Your task to perform on an android device: read, delete, or share a saved page in the chrome app Image 0: 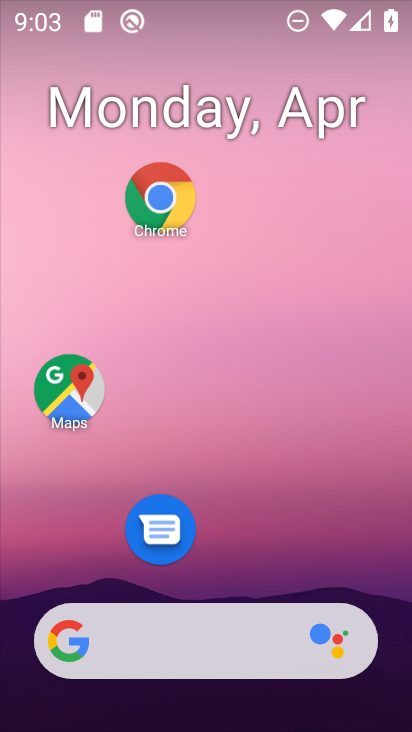
Step 0: click (165, 190)
Your task to perform on an android device: read, delete, or share a saved page in the chrome app Image 1: 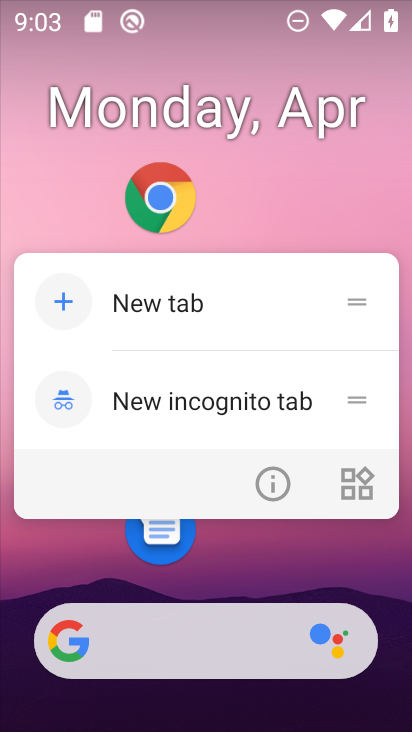
Step 1: click (159, 200)
Your task to perform on an android device: read, delete, or share a saved page in the chrome app Image 2: 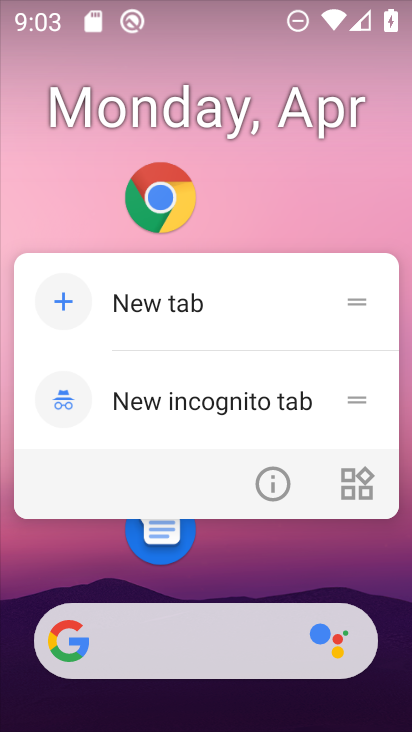
Step 2: click (159, 200)
Your task to perform on an android device: read, delete, or share a saved page in the chrome app Image 3: 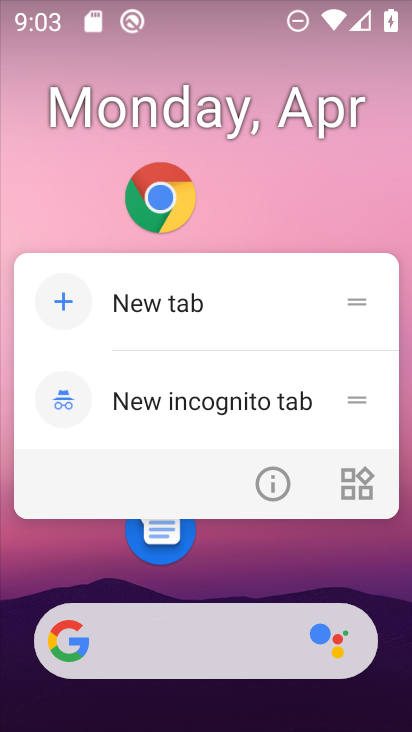
Step 3: click (159, 200)
Your task to perform on an android device: read, delete, or share a saved page in the chrome app Image 4: 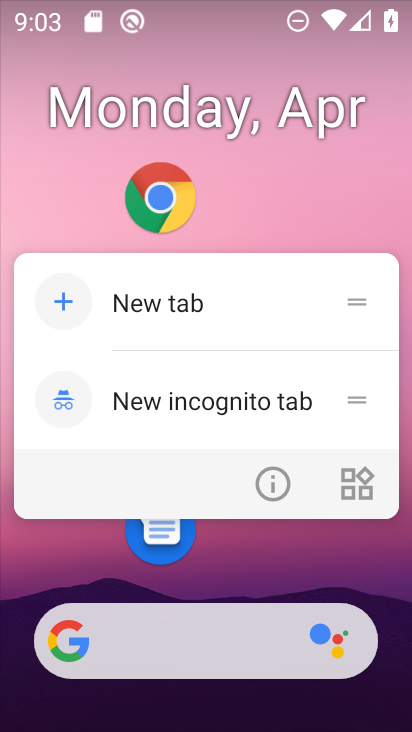
Step 4: click (159, 200)
Your task to perform on an android device: read, delete, or share a saved page in the chrome app Image 5: 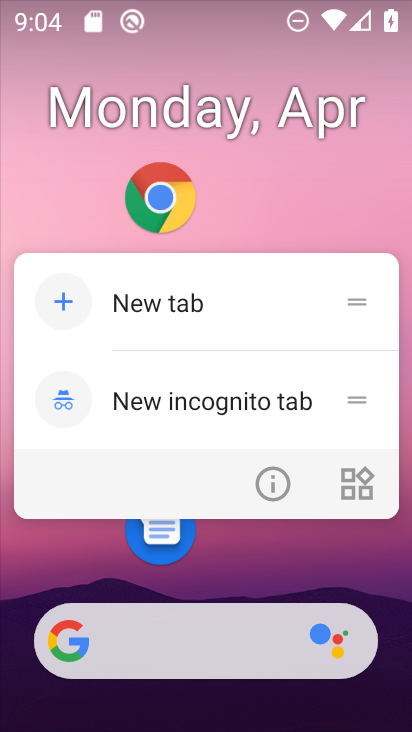
Step 5: click (156, 212)
Your task to perform on an android device: read, delete, or share a saved page in the chrome app Image 6: 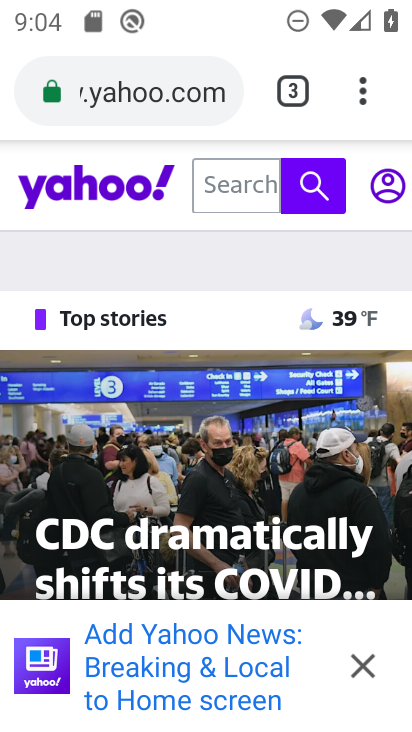
Step 6: click (365, 88)
Your task to perform on an android device: read, delete, or share a saved page in the chrome app Image 7: 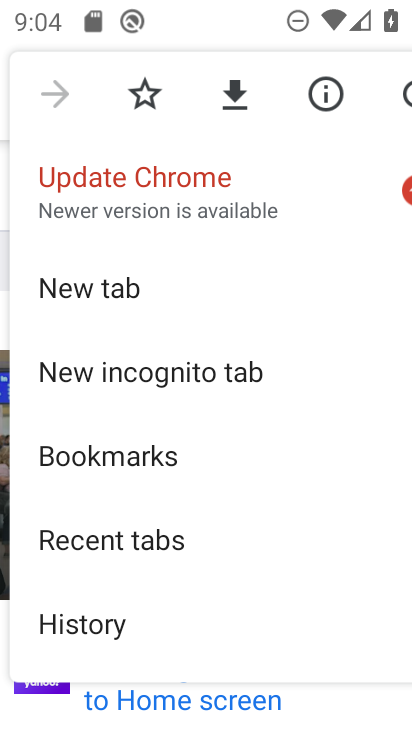
Step 7: drag from (122, 623) to (220, 236)
Your task to perform on an android device: read, delete, or share a saved page in the chrome app Image 8: 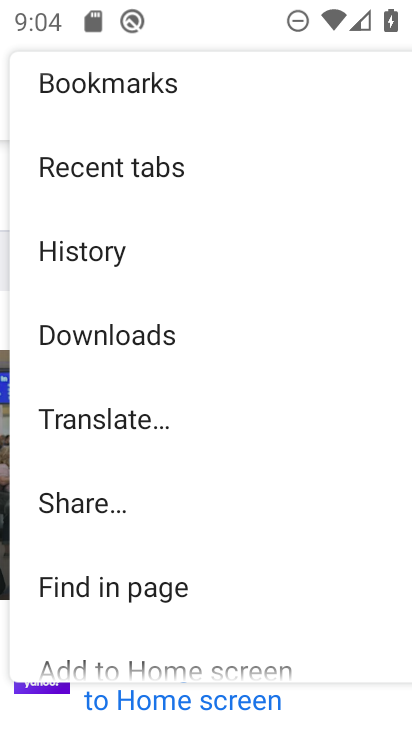
Step 8: click (104, 334)
Your task to perform on an android device: read, delete, or share a saved page in the chrome app Image 9: 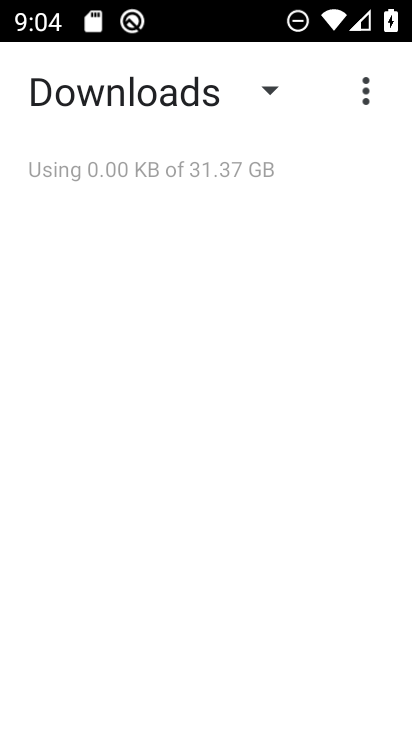
Step 9: click (262, 88)
Your task to perform on an android device: read, delete, or share a saved page in the chrome app Image 10: 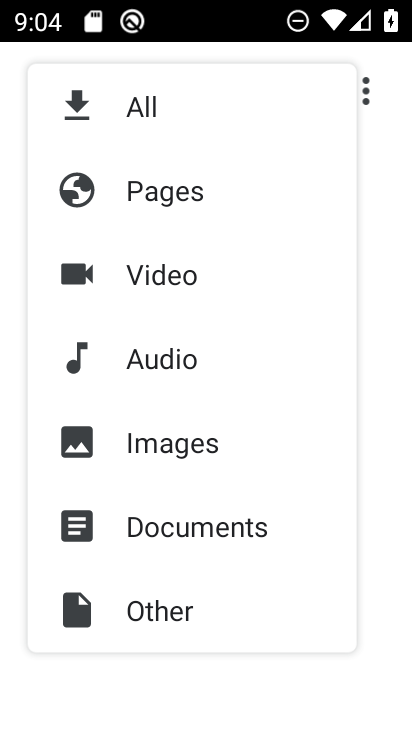
Step 10: click (167, 206)
Your task to perform on an android device: read, delete, or share a saved page in the chrome app Image 11: 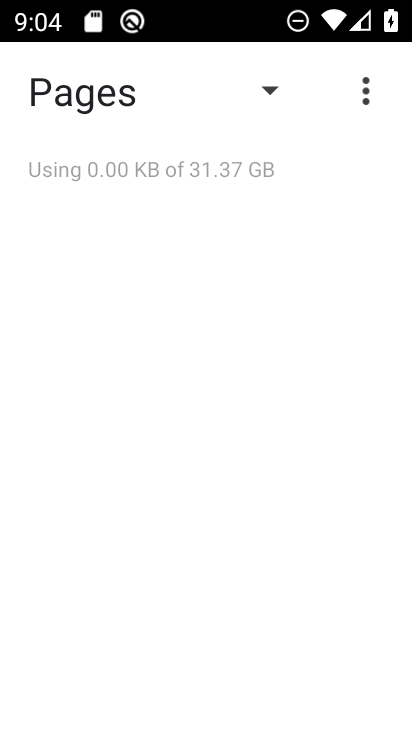
Step 11: task complete